Your task to perform on an android device: Search for Italian restaurants on Maps Image 0: 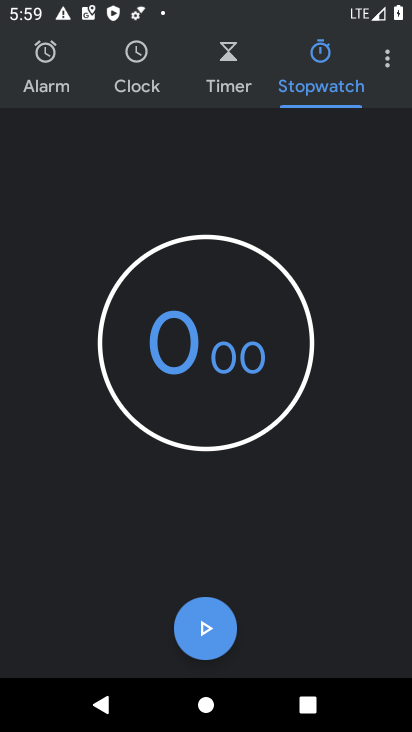
Step 0: task complete